Your task to perform on an android device: Open Youtube and go to the subscriptions tab Image 0: 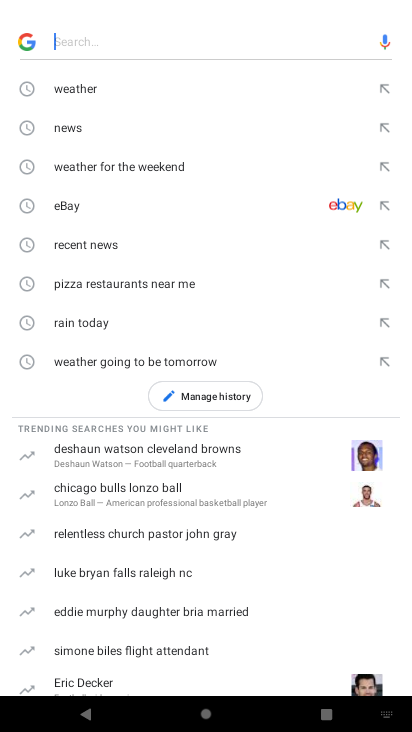
Step 0: press home button
Your task to perform on an android device: Open Youtube and go to the subscriptions tab Image 1: 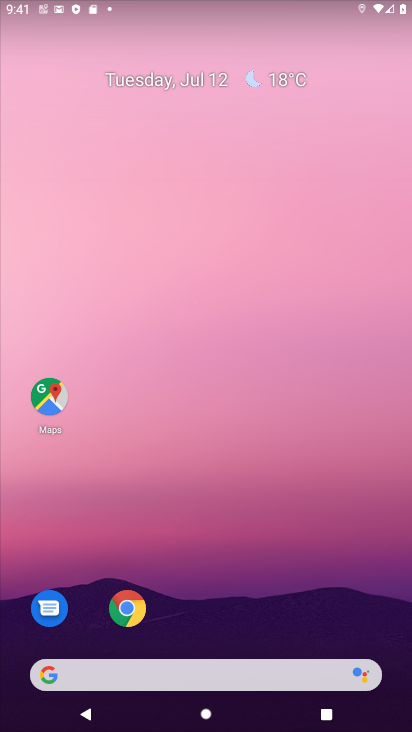
Step 1: drag from (222, 552) to (223, 0)
Your task to perform on an android device: Open Youtube and go to the subscriptions tab Image 2: 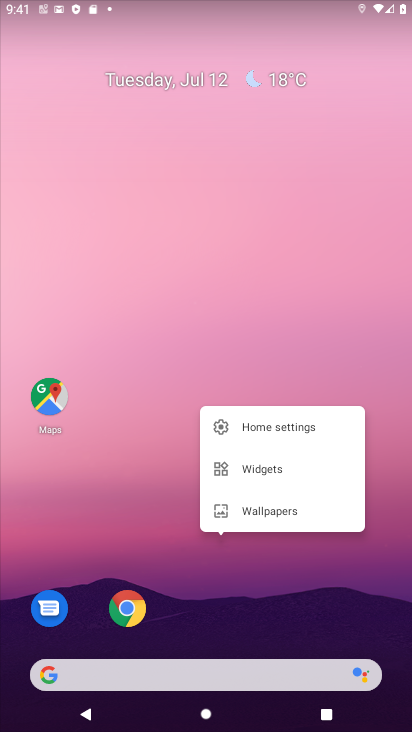
Step 2: click (233, 198)
Your task to perform on an android device: Open Youtube and go to the subscriptions tab Image 3: 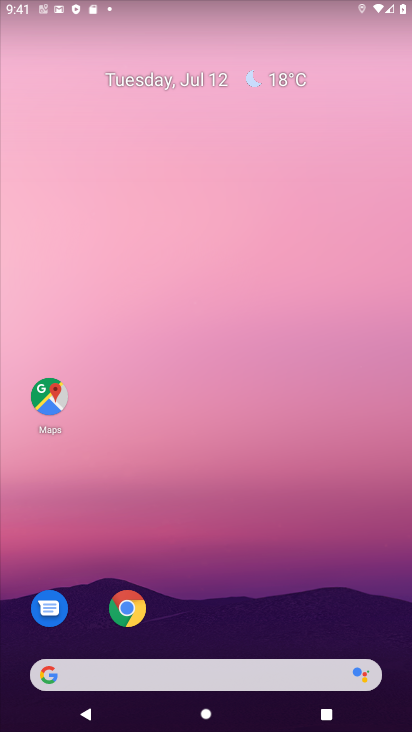
Step 3: drag from (236, 636) to (214, 39)
Your task to perform on an android device: Open Youtube and go to the subscriptions tab Image 4: 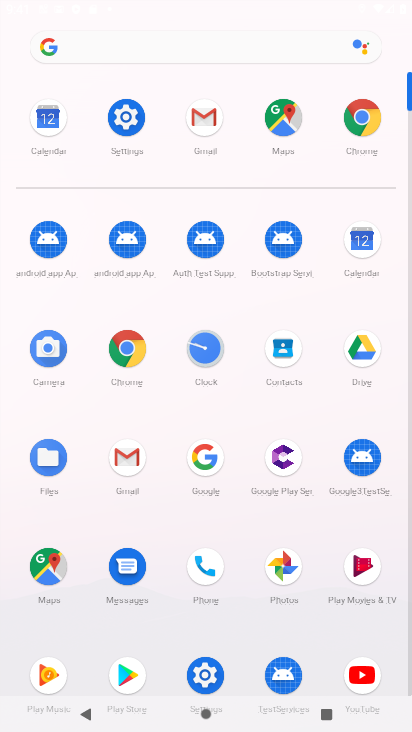
Step 4: click (364, 669)
Your task to perform on an android device: Open Youtube and go to the subscriptions tab Image 5: 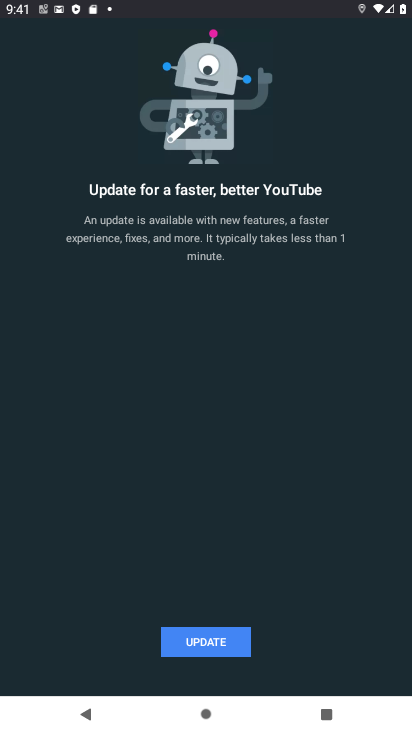
Step 5: click (201, 638)
Your task to perform on an android device: Open Youtube and go to the subscriptions tab Image 6: 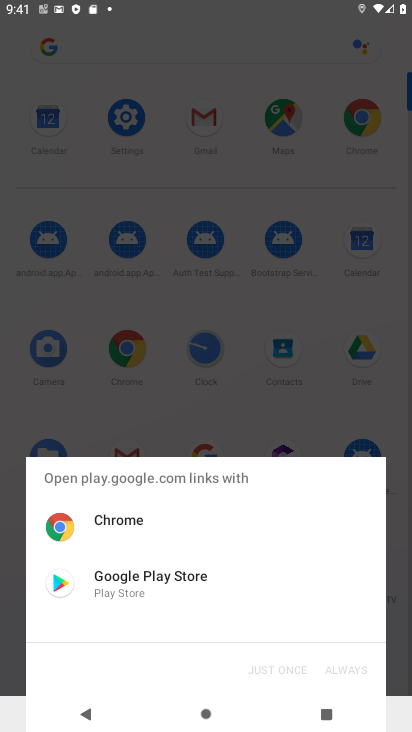
Step 6: click (151, 585)
Your task to perform on an android device: Open Youtube and go to the subscriptions tab Image 7: 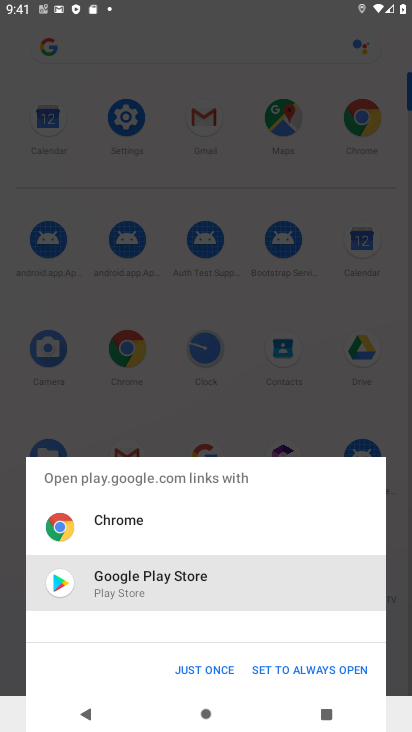
Step 7: click (208, 675)
Your task to perform on an android device: Open Youtube and go to the subscriptions tab Image 8: 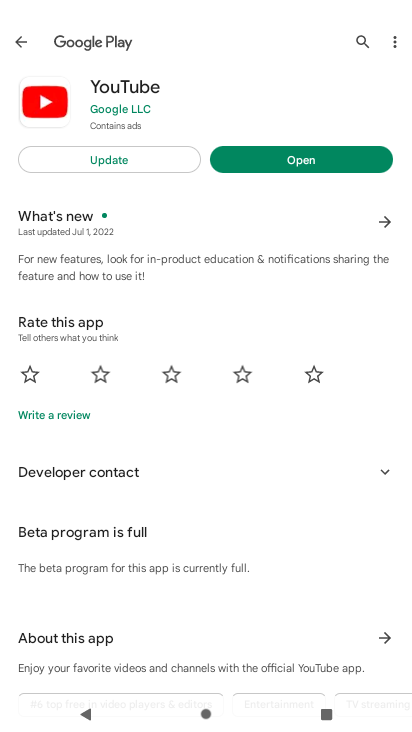
Step 8: click (117, 162)
Your task to perform on an android device: Open Youtube and go to the subscriptions tab Image 9: 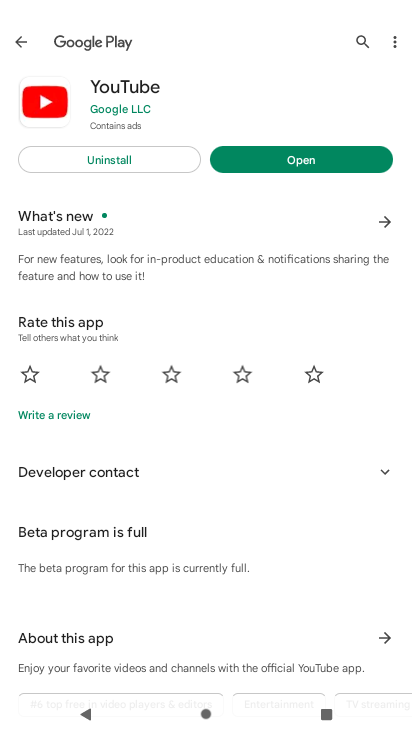
Step 9: click (256, 157)
Your task to perform on an android device: Open Youtube and go to the subscriptions tab Image 10: 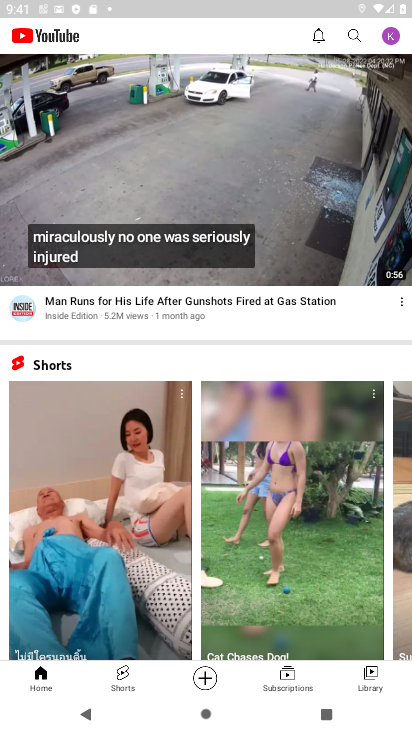
Step 10: click (286, 672)
Your task to perform on an android device: Open Youtube and go to the subscriptions tab Image 11: 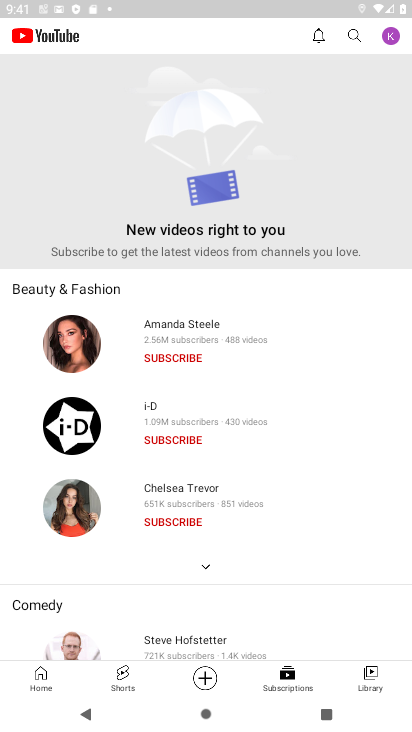
Step 11: task complete